Your task to perform on an android device: Open the Play Movies app and select the watchlist tab. Image 0: 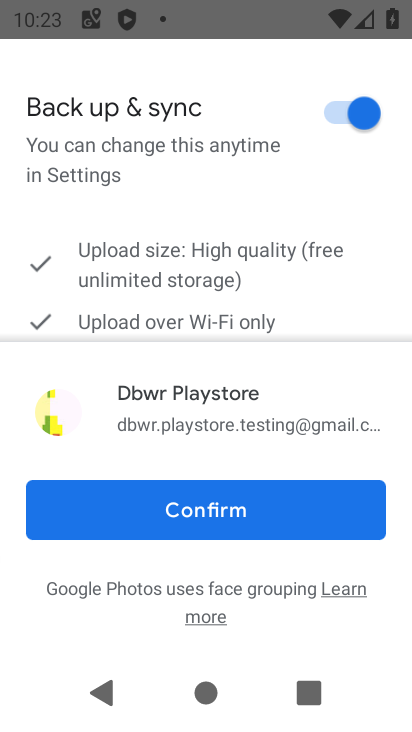
Step 0: click (246, 499)
Your task to perform on an android device: Open the Play Movies app and select the watchlist tab. Image 1: 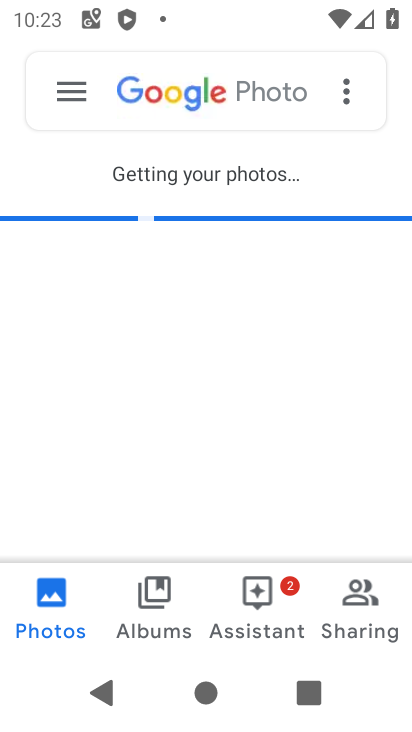
Step 1: click (246, 499)
Your task to perform on an android device: Open the Play Movies app and select the watchlist tab. Image 2: 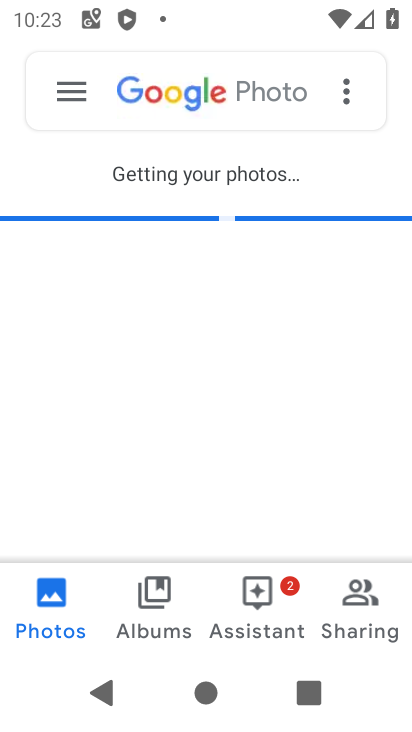
Step 2: click (246, 499)
Your task to perform on an android device: Open the Play Movies app and select the watchlist tab. Image 3: 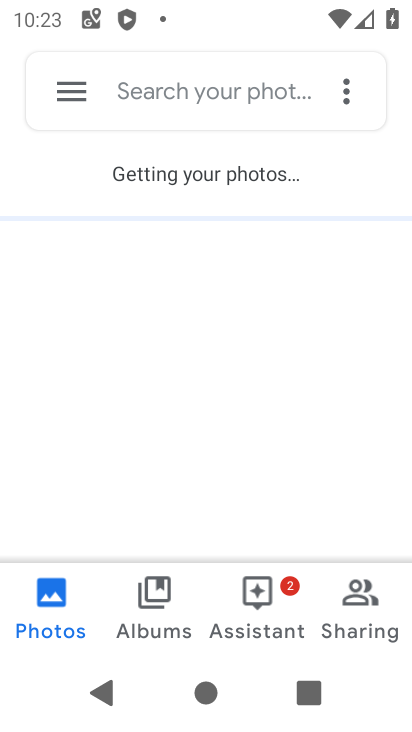
Step 3: press home button
Your task to perform on an android device: Open the Play Movies app and select the watchlist tab. Image 4: 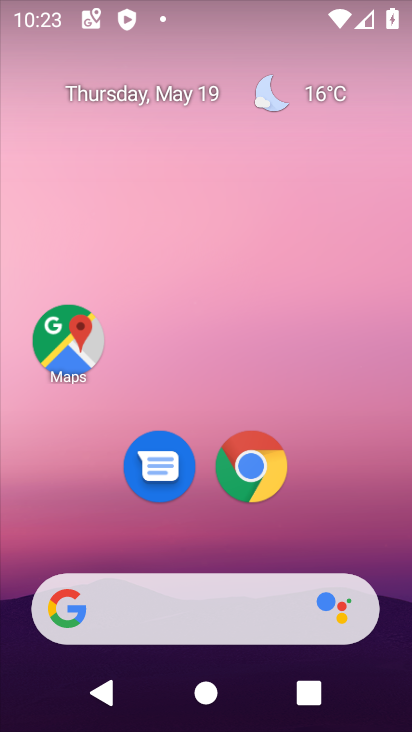
Step 4: drag from (167, 552) to (118, 10)
Your task to perform on an android device: Open the Play Movies app and select the watchlist tab. Image 5: 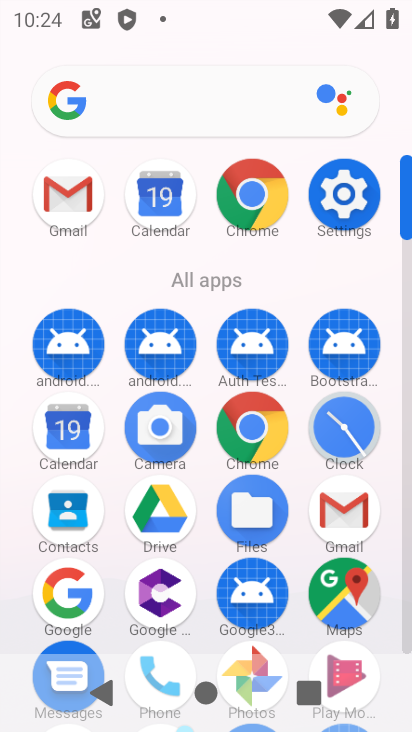
Step 5: drag from (313, 501) to (325, 176)
Your task to perform on an android device: Open the Play Movies app and select the watchlist tab. Image 6: 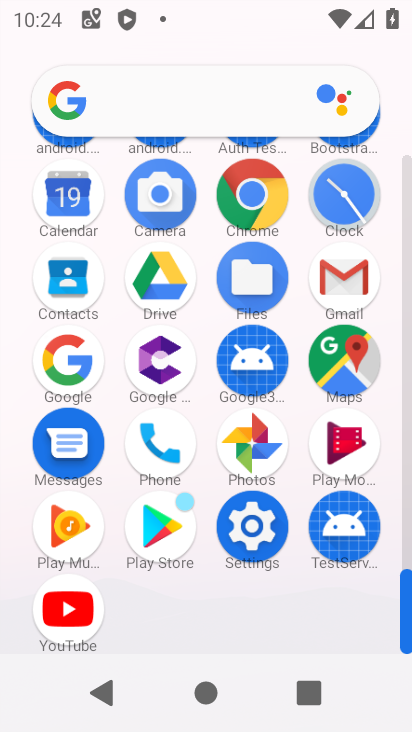
Step 6: click (338, 445)
Your task to perform on an android device: Open the Play Movies app and select the watchlist tab. Image 7: 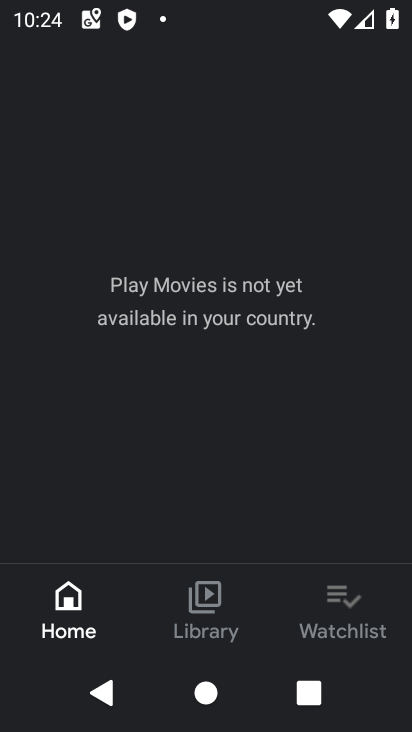
Step 7: click (341, 595)
Your task to perform on an android device: Open the Play Movies app and select the watchlist tab. Image 8: 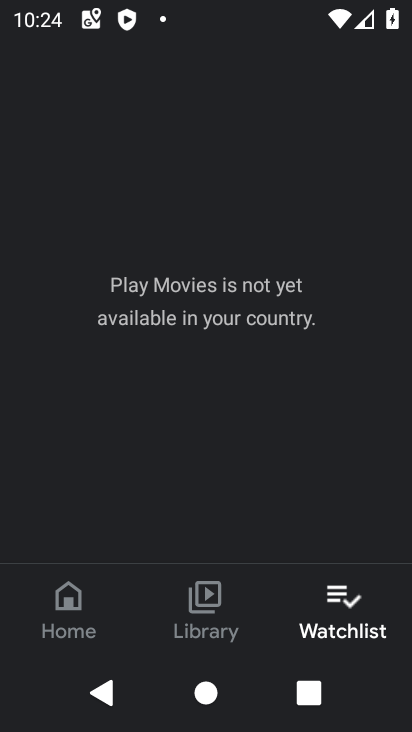
Step 8: task complete